Your task to perform on an android device: turn vacation reply on in the gmail app Image 0: 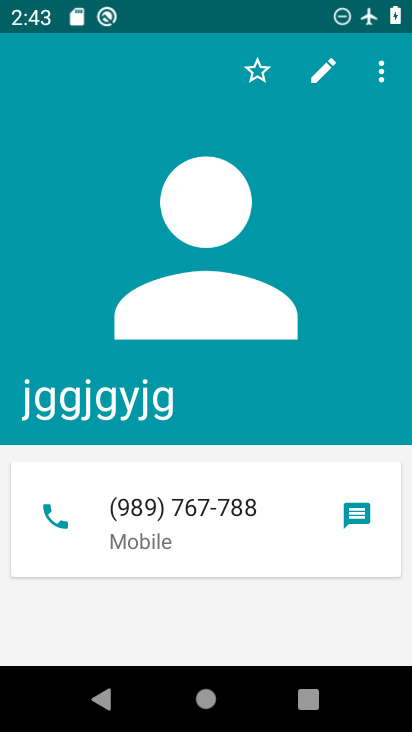
Step 0: press home button
Your task to perform on an android device: turn vacation reply on in the gmail app Image 1: 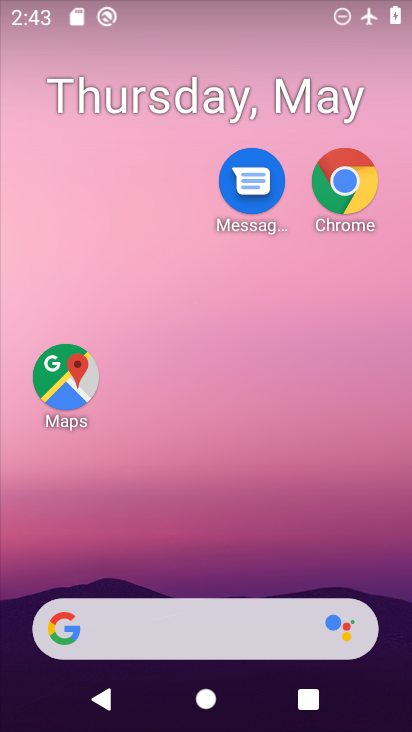
Step 1: drag from (239, 646) to (331, 10)
Your task to perform on an android device: turn vacation reply on in the gmail app Image 2: 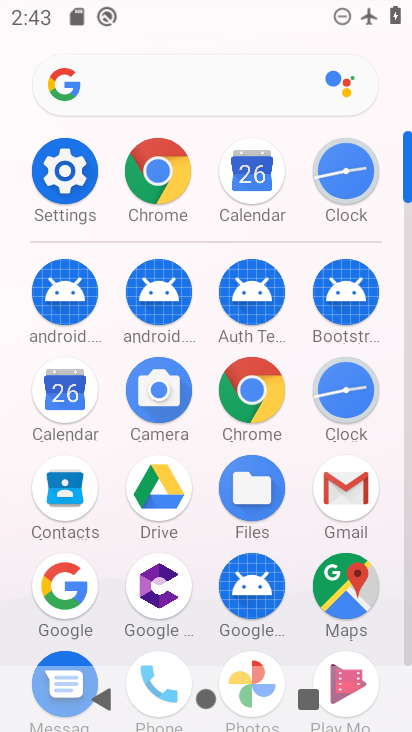
Step 2: click (338, 487)
Your task to perform on an android device: turn vacation reply on in the gmail app Image 3: 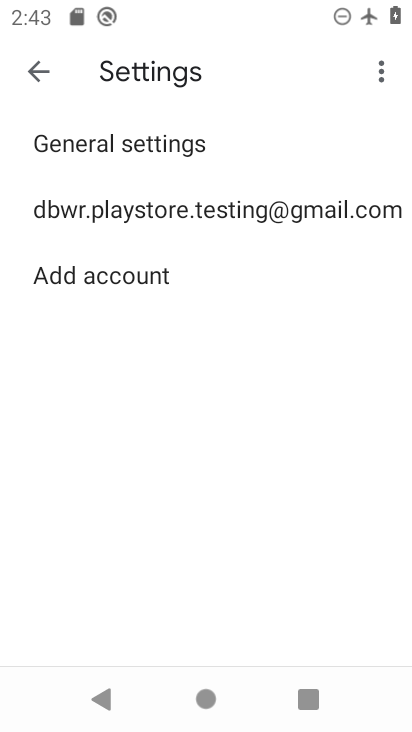
Step 3: click (120, 221)
Your task to perform on an android device: turn vacation reply on in the gmail app Image 4: 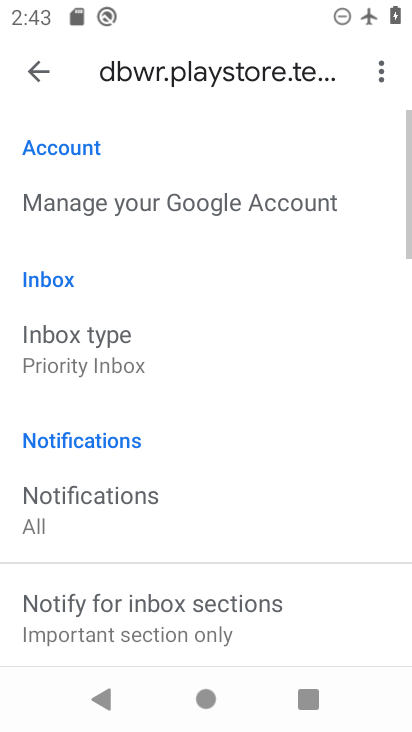
Step 4: drag from (272, 637) to (410, 0)
Your task to perform on an android device: turn vacation reply on in the gmail app Image 5: 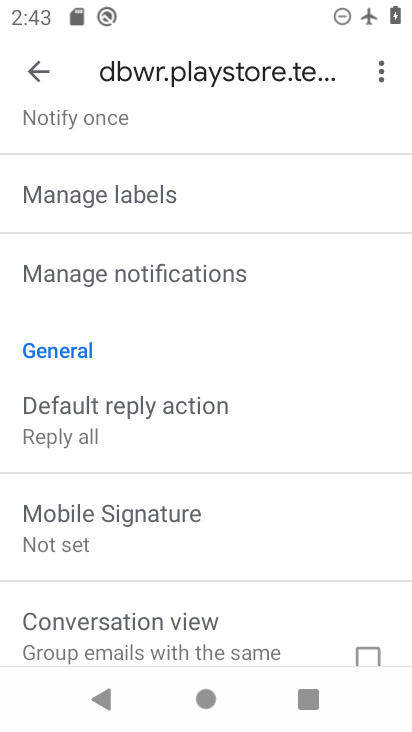
Step 5: drag from (179, 608) to (256, 106)
Your task to perform on an android device: turn vacation reply on in the gmail app Image 6: 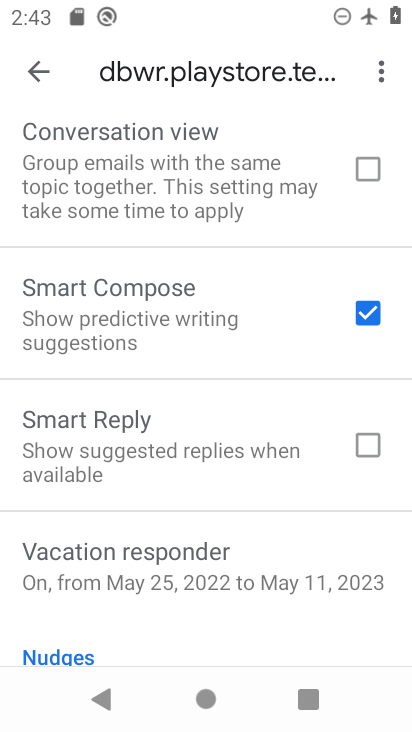
Step 6: click (212, 569)
Your task to perform on an android device: turn vacation reply on in the gmail app Image 7: 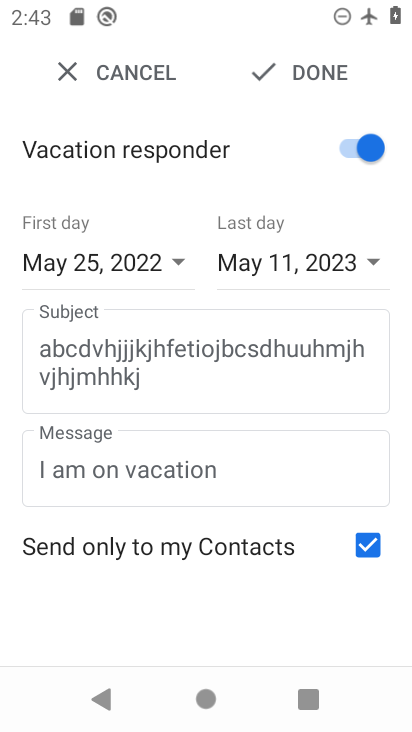
Step 7: click (322, 74)
Your task to perform on an android device: turn vacation reply on in the gmail app Image 8: 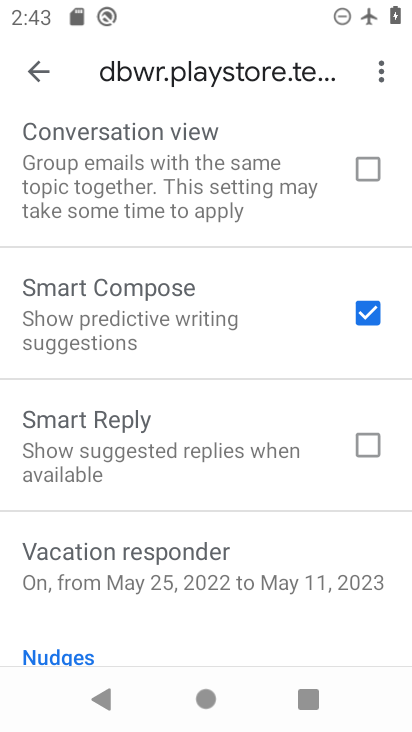
Step 8: task complete